Your task to perform on an android device: Check the news Image 0: 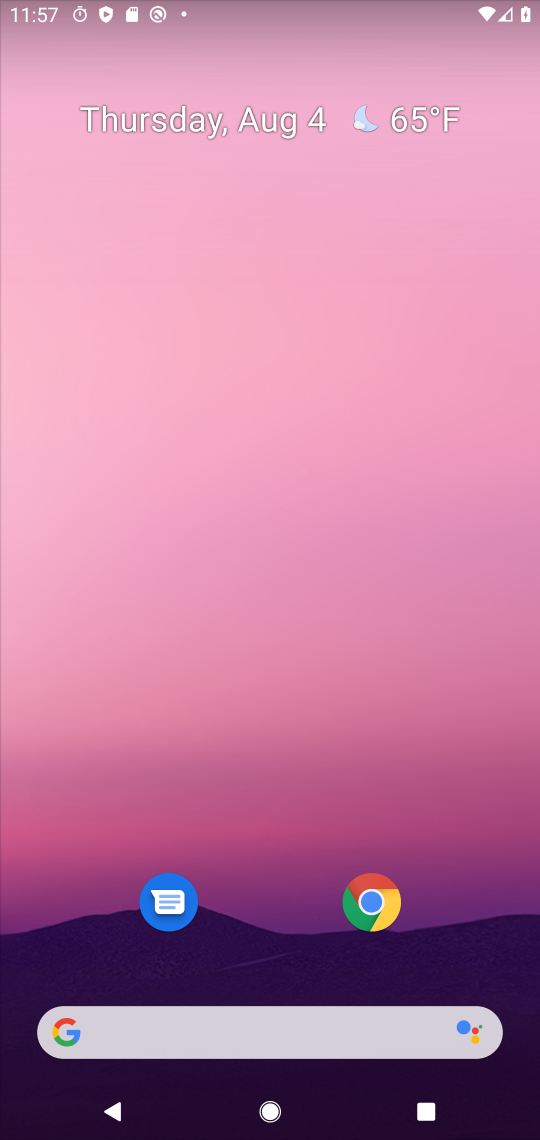
Step 0: press home button
Your task to perform on an android device: Check the news Image 1: 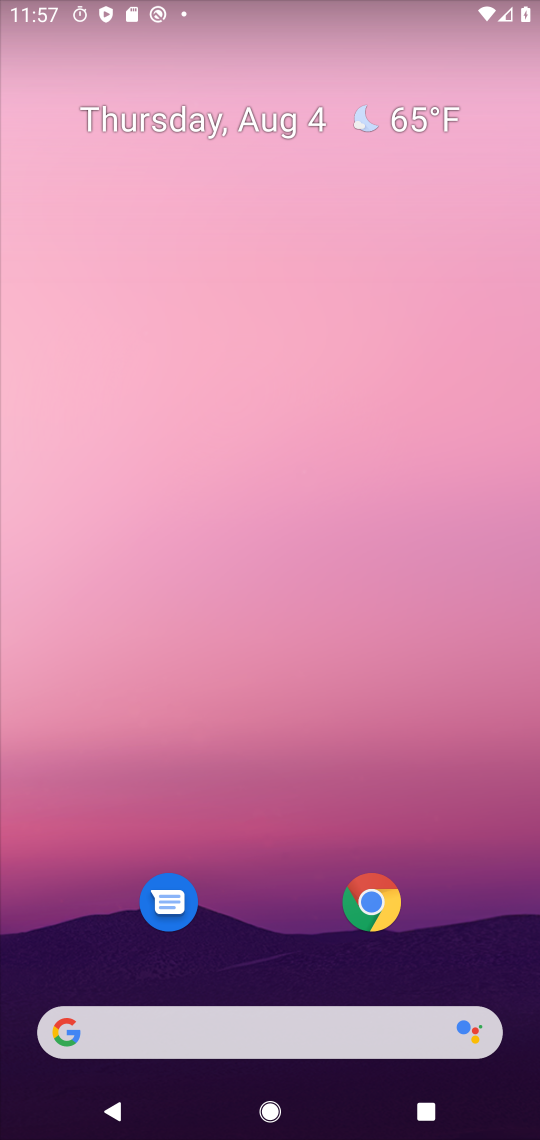
Step 1: click (249, 1028)
Your task to perform on an android device: Check the news Image 2: 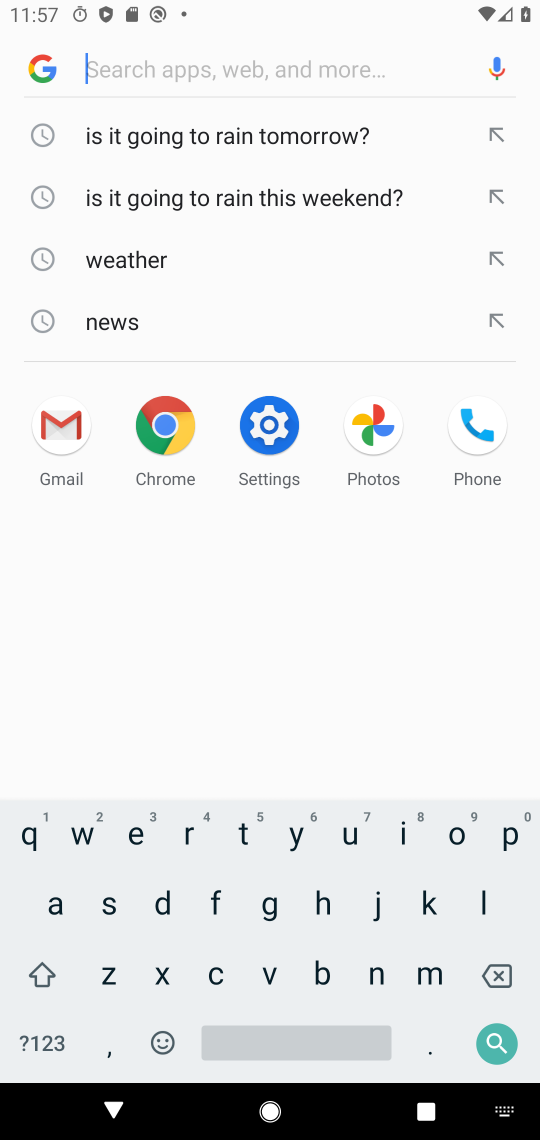
Step 2: click (159, 327)
Your task to perform on an android device: Check the news Image 3: 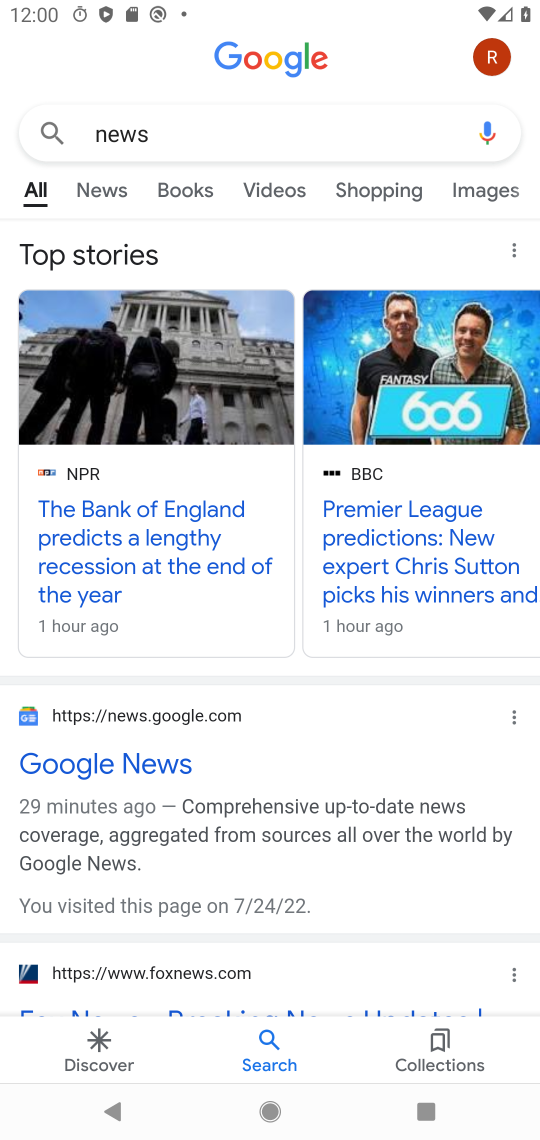
Step 3: task complete